Your task to perform on an android device: turn on data saver in the chrome app Image 0: 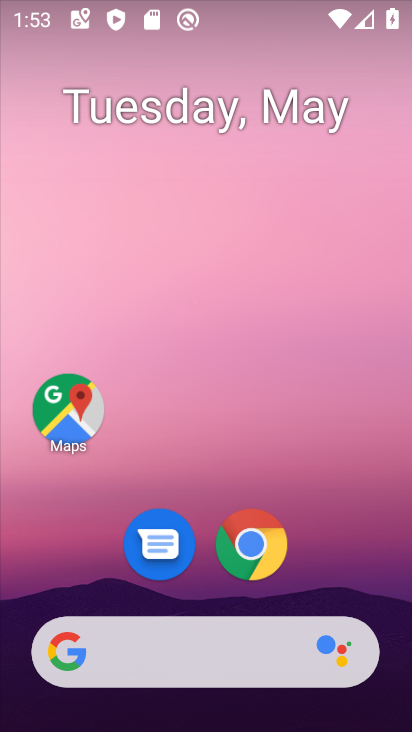
Step 0: click (254, 546)
Your task to perform on an android device: turn on data saver in the chrome app Image 1: 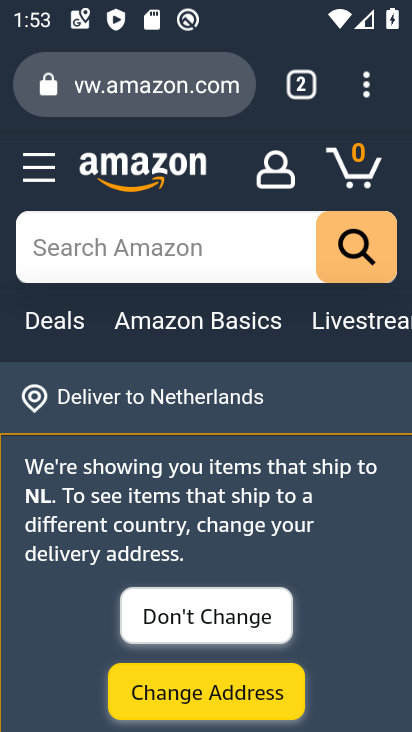
Step 1: drag from (371, 74) to (174, 608)
Your task to perform on an android device: turn on data saver in the chrome app Image 2: 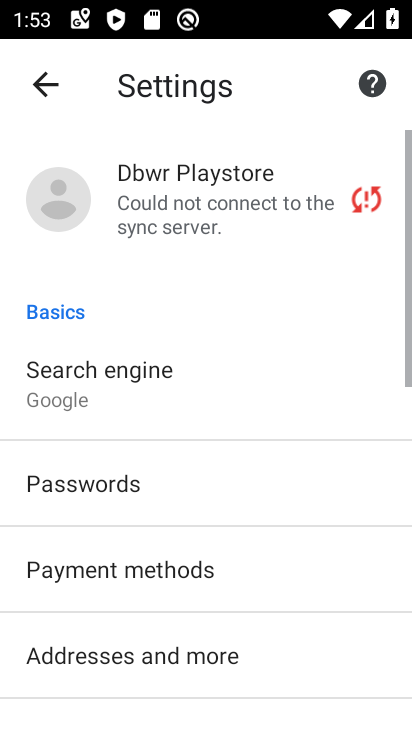
Step 2: drag from (179, 603) to (239, 111)
Your task to perform on an android device: turn on data saver in the chrome app Image 3: 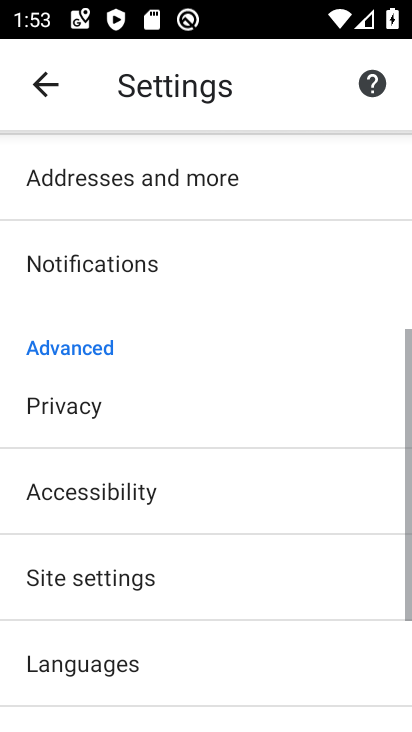
Step 3: drag from (194, 551) to (277, 270)
Your task to perform on an android device: turn on data saver in the chrome app Image 4: 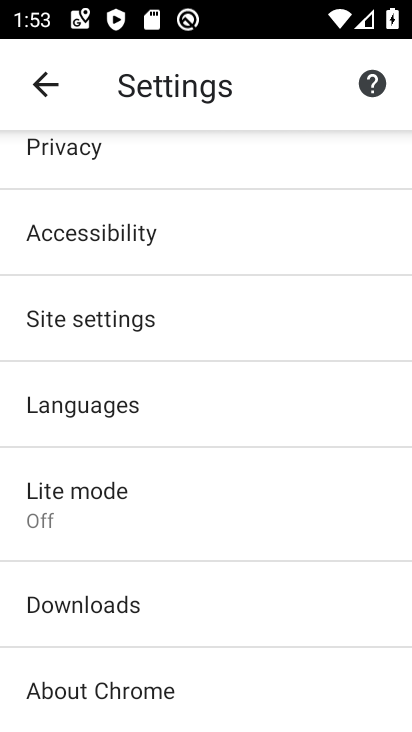
Step 4: click (117, 505)
Your task to perform on an android device: turn on data saver in the chrome app Image 5: 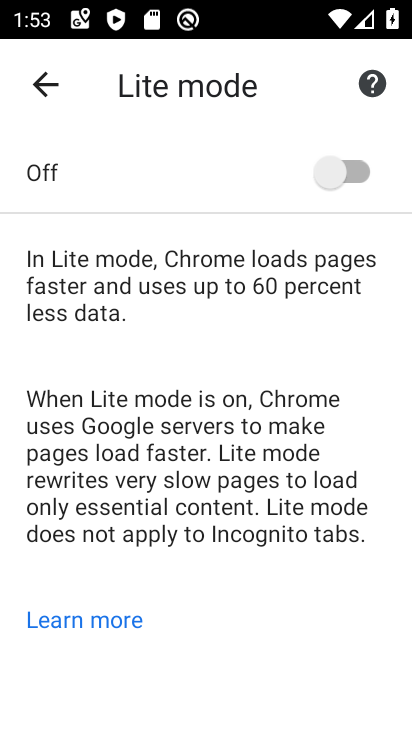
Step 5: click (344, 178)
Your task to perform on an android device: turn on data saver in the chrome app Image 6: 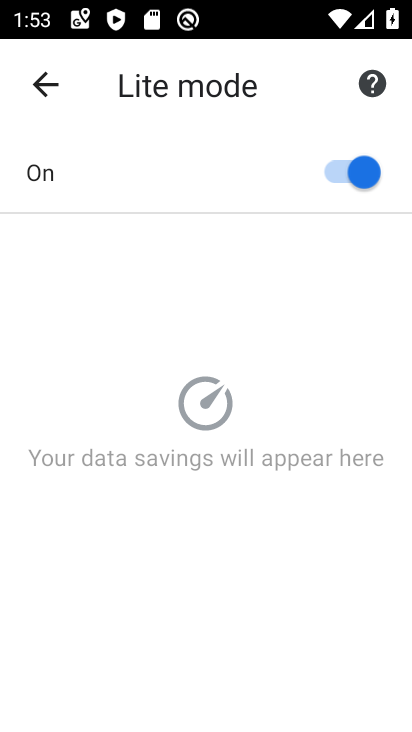
Step 6: task complete